Your task to perform on an android device: Find coffee shops on Maps Image 0: 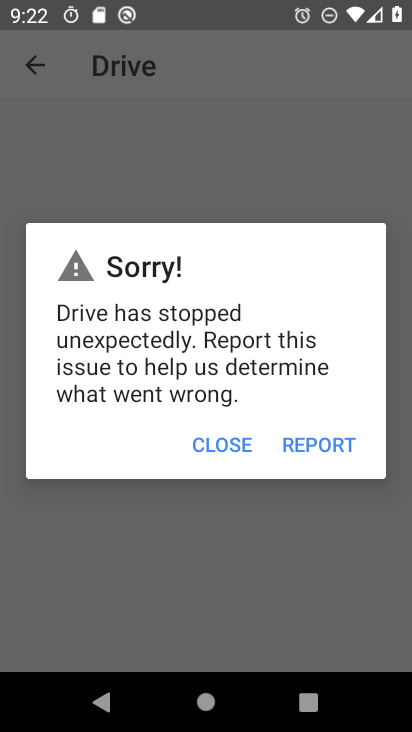
Step 0: press home button
Your task to perform on an android device: Find coffee shops on Maps Image 1: 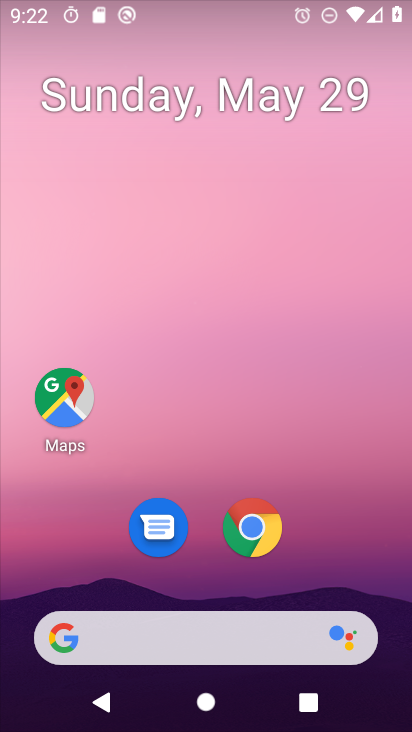
Step 1: drag from (392, 642) to (245, 14)
Your task to perform on an android device: Find coffee shops on Maps Image 2: 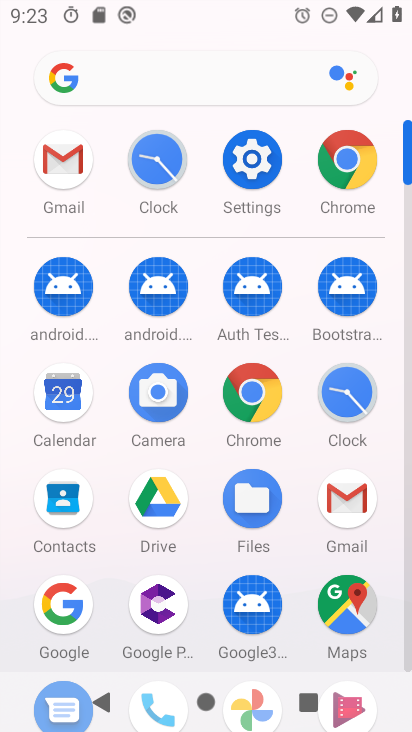
Step 2: click (357, 602)
Your task to perform on an android device: Find coffee shops on Maps Image 3: 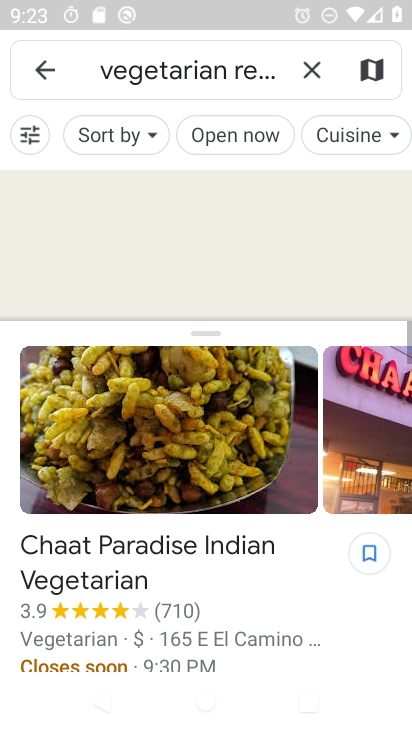
Step 3: click (308, 72)
Your task to perform on an android device: Find coffee shops on Maps Image 4: 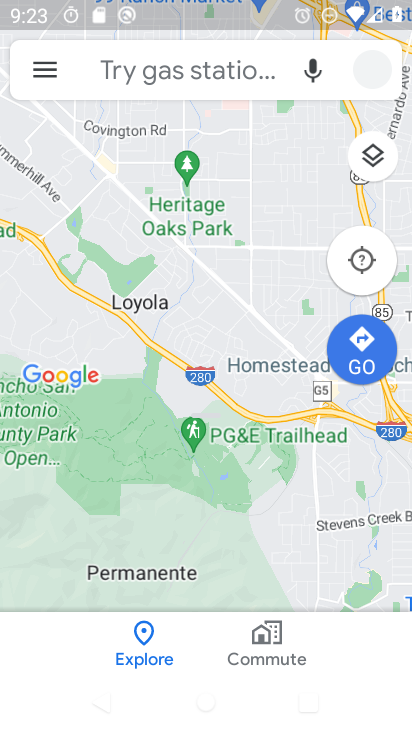
Step 4: click (202, 62)
Your task to perform on an android device: Find coffee shops on Maps Image 5: 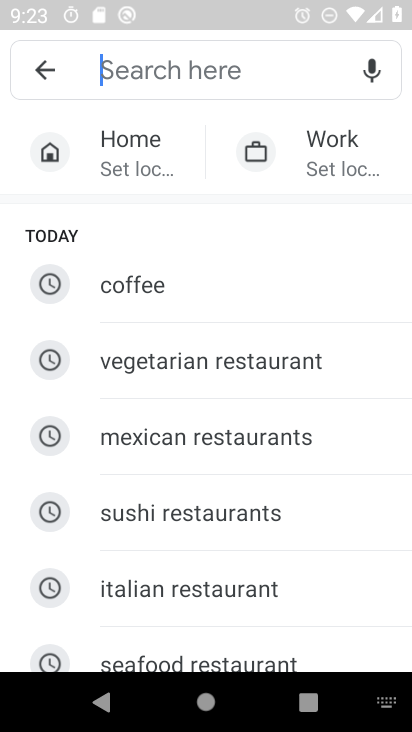
Step 5: click (174, 302)
Your task to perform on an android device: Find coffee shops on Maps Image 6: 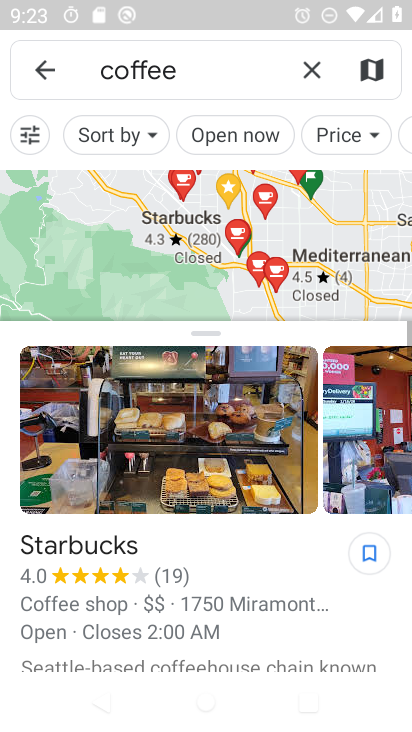
Step 6: task complete